Your task to perform on an android device: turn off translation in the chrome app Image 0: 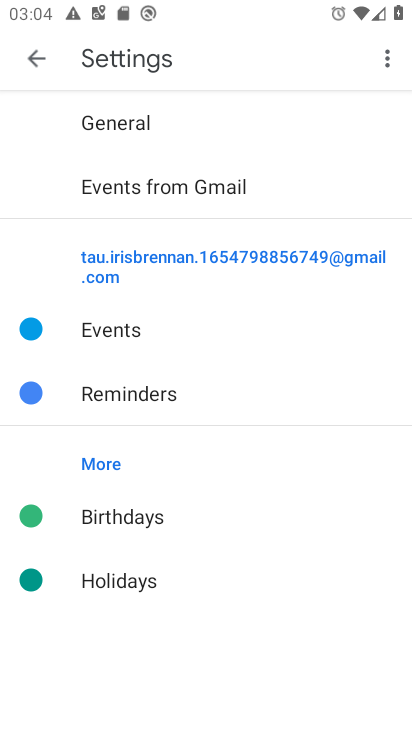
Step 0: press home button
Your task to perform on an android device: turn off translation in the chrome app Image 1: 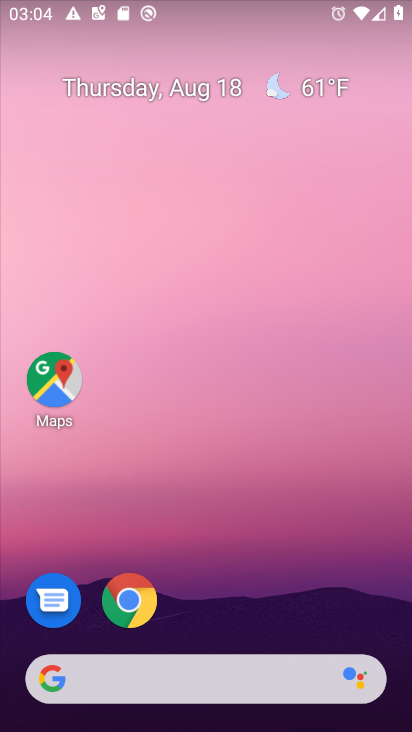
Step 1: click (103, 596)
Your task to perform on an android device: turn off translation in the chrome app Image 2: 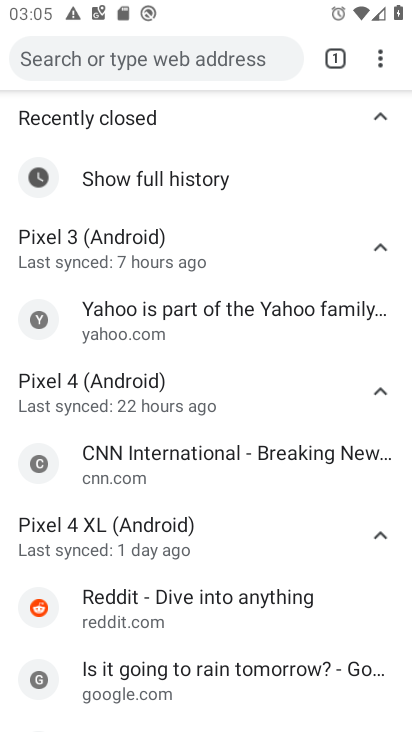
Step 2: drag from (382, 53) to (202, 485)
Your task to perform on an android device: turn off translation in the chrome app Image 3: 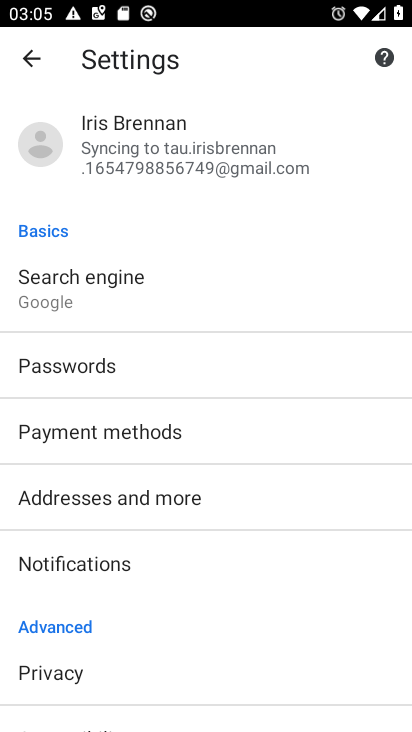
Step 3: drag from (252, 644) to (218, 328)
Your task to perform on an android device: turn off translation in the chrome app Image 4: 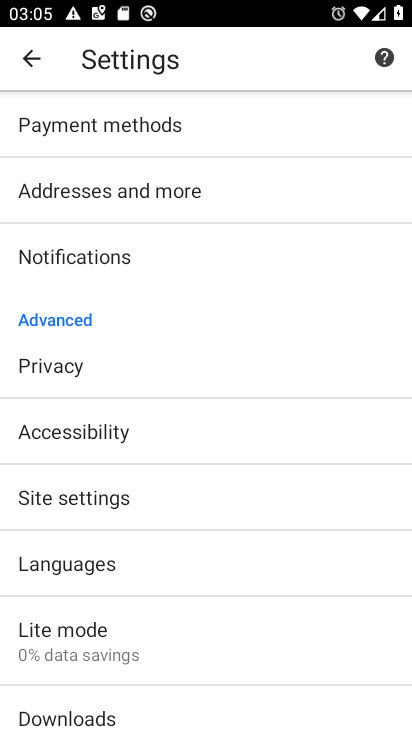
Step 4: click (52, 563)
Your task to perform on an android device: turn off translation in the chrome app Image 5: 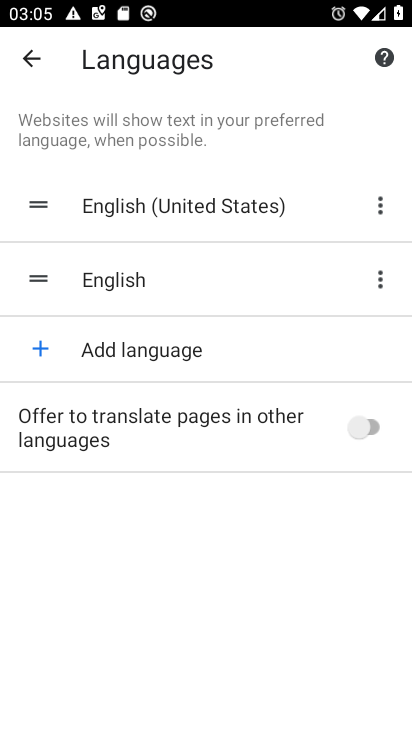
Step 5: task complete